Your task to perform on an android device: allow cookies in the chrome app Image 0: 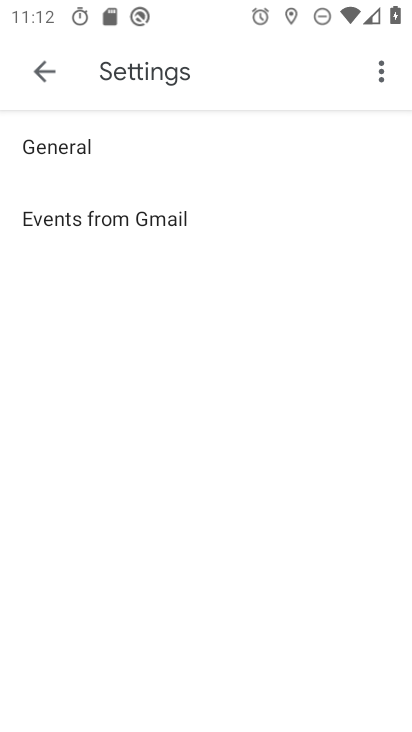
Step 0: press home button
Your task to perform on an android device: allow cookies in the chrome app Image 1: 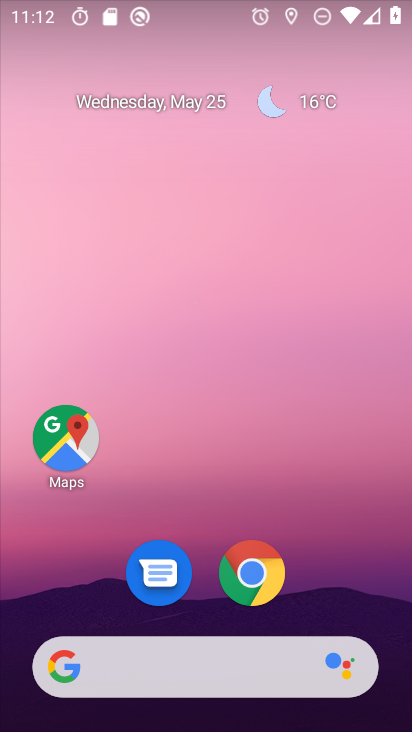
Step 1: click (258, 577)
Your task to perform on an android device: allow cookies in the chrome app Image 2: 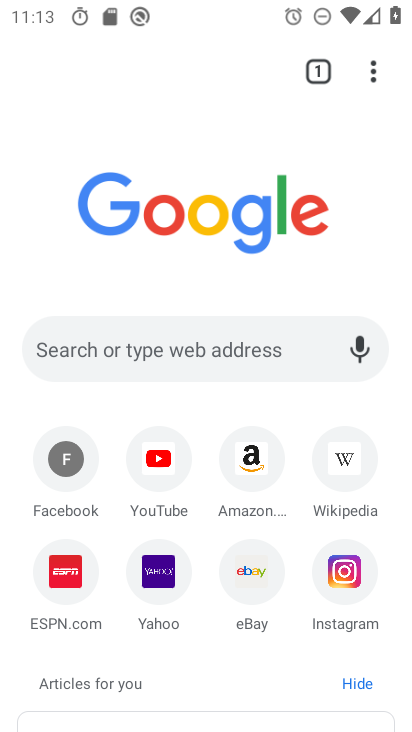
Step 2: click (377, 72)
Your task to perform on an android device: allow cookies in the chrome app Image 3: 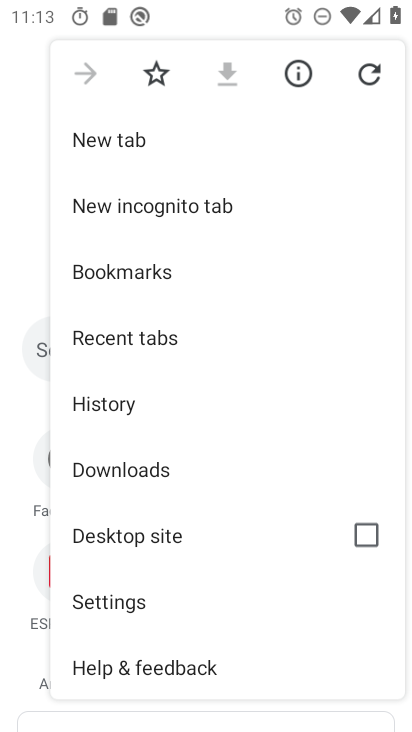
Step 3: click (111, 606)
Your task to perform on an android device: allow cookies in the chrome app Image 4: 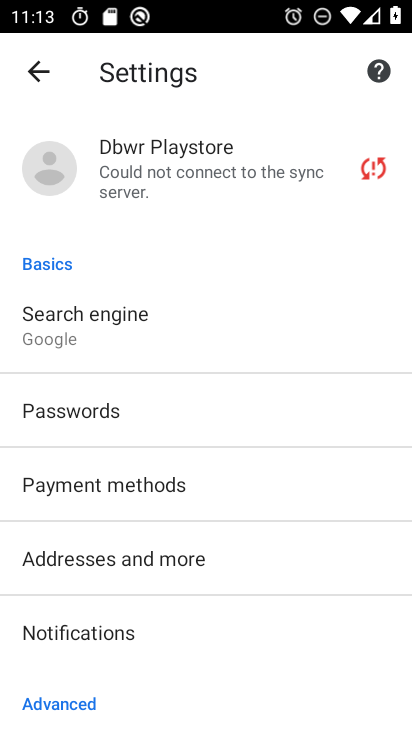
Step 4: drag from (229, 575) to (219, 142)
Your task to perform on an android device: allow cookies in the chrome app Image 5: 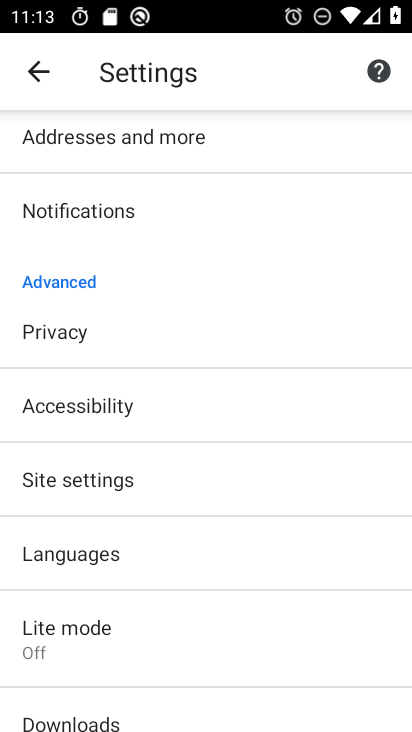
Step 5: click (103, 482)
Your task to perform on an android device: allow cookies in the chrome app Image 6: 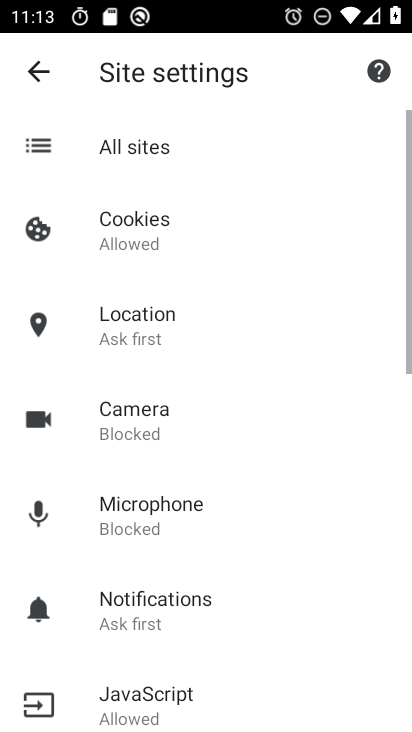
Step 6: click (139, 247)
Your task to perform on an android device: allow cookies in the chrome app Image 7: 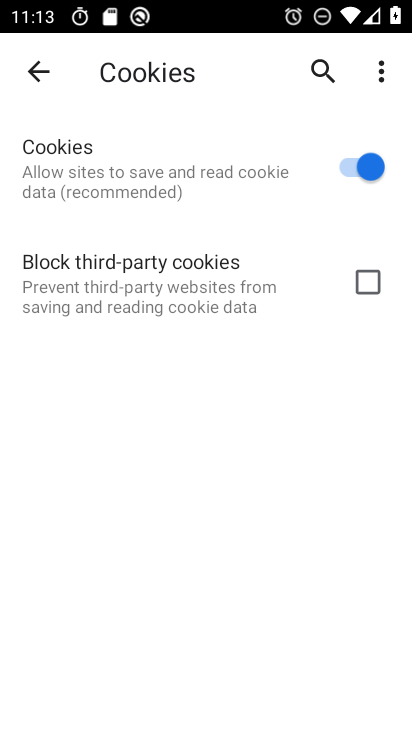
Step 7: task complete